Your task to perform on an android device: turn on airplane mode Image 0: 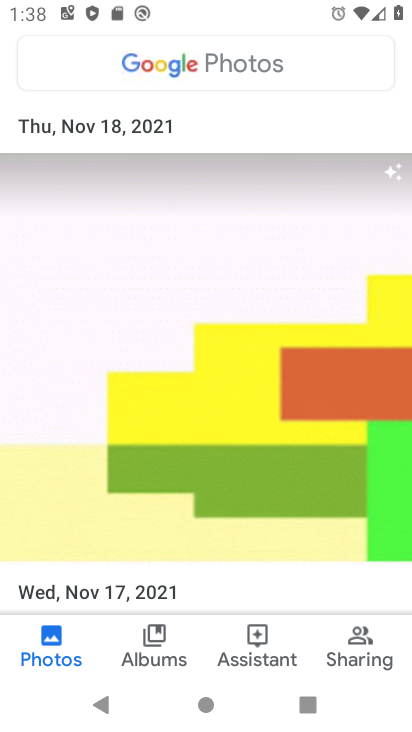
Step 0: press home button
Your task to perform on an android device: turn on airplane mode Image 1: 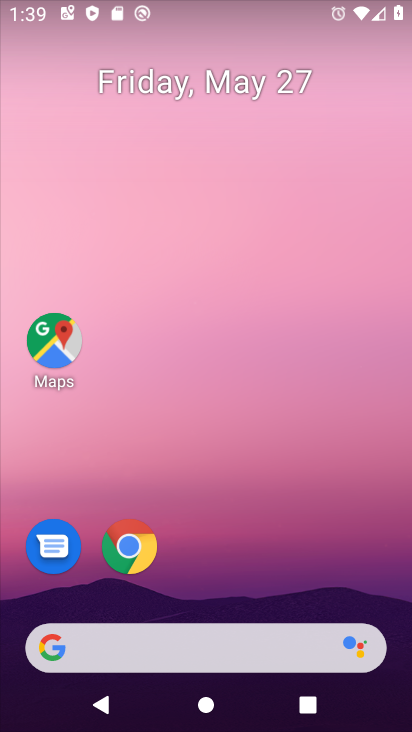
Step 1: drag from (233, 664) to (275, 118)
Your task to perform on an android device: turn on airplane mode Image 2: 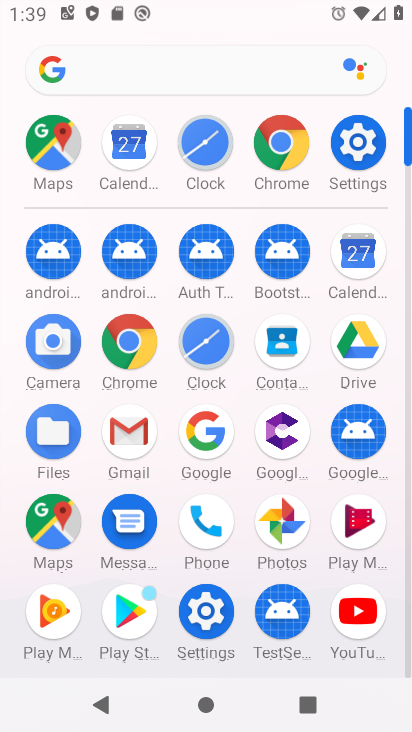
Step 2: click (356, 151)
Your task to perform on an android device: turn on airplane mode Image 3: 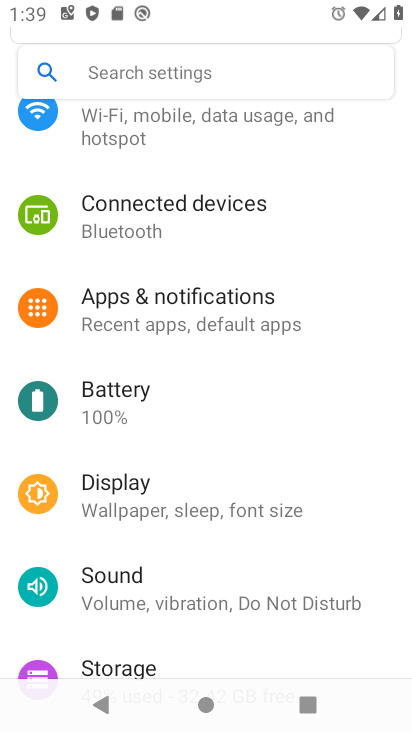
Step 3: click (195, 144)
Your task to perform on an android device: turn on airplane mode Image 4: 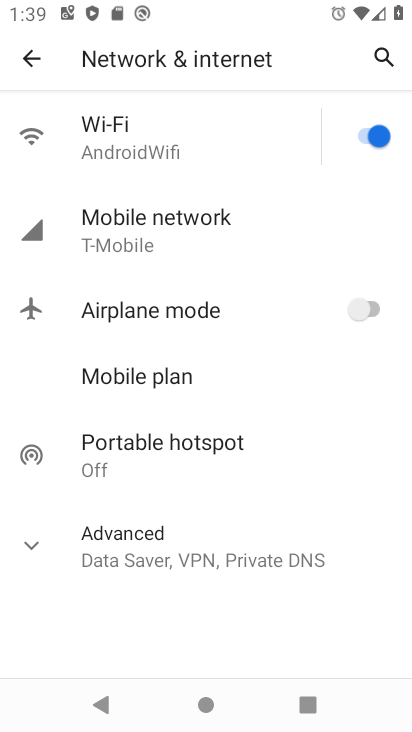
Step 4: click (331, 306)
Your task to perform on an android device: turn on airplane mode Image 5: 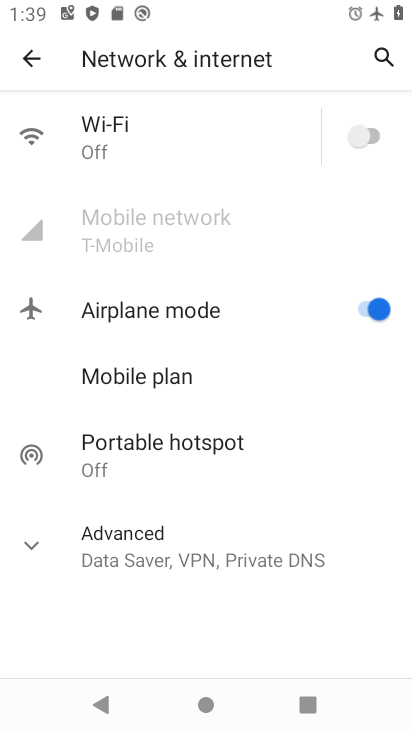
Step 5: task complete